Your task to perform on an android device: turn on improve location accuracy Image 0: 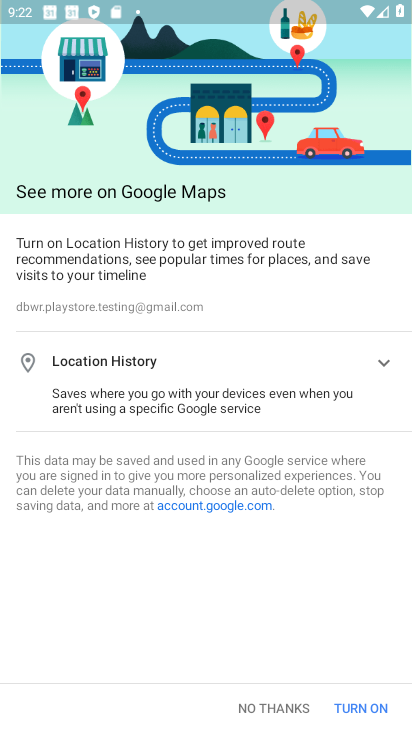
Step 0: click (371, 702)
Your task to perform on an android device: turn on improve location accuracy Image 1: 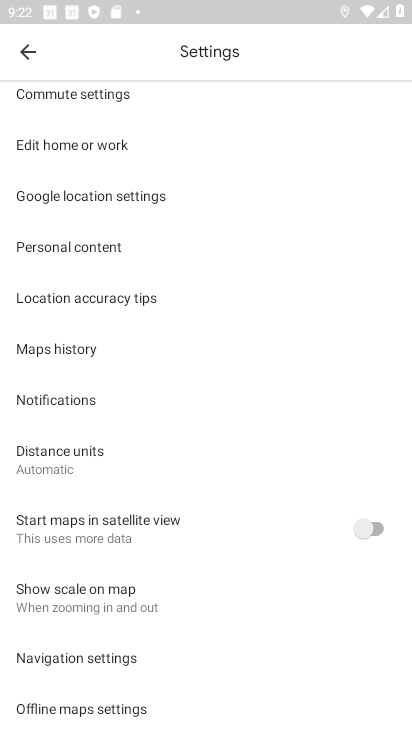
Step 1: click (98, 194)
Your task to perform on an android device: turn on improve location accuracy Image 2: 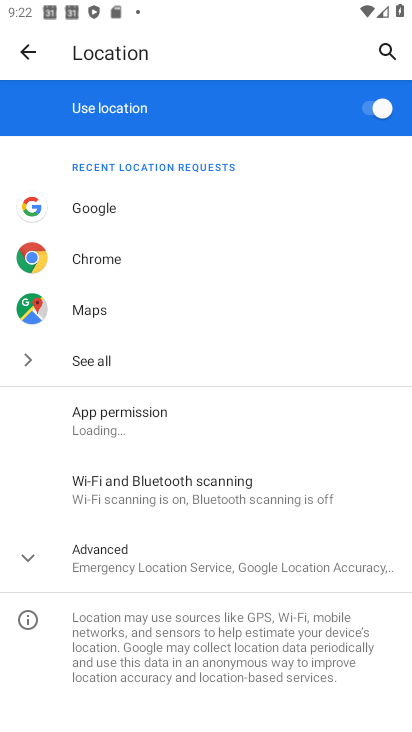
Step 2: click (148, 548)
Your task to perform on an android device: turn on improve location accuracy Image 3: 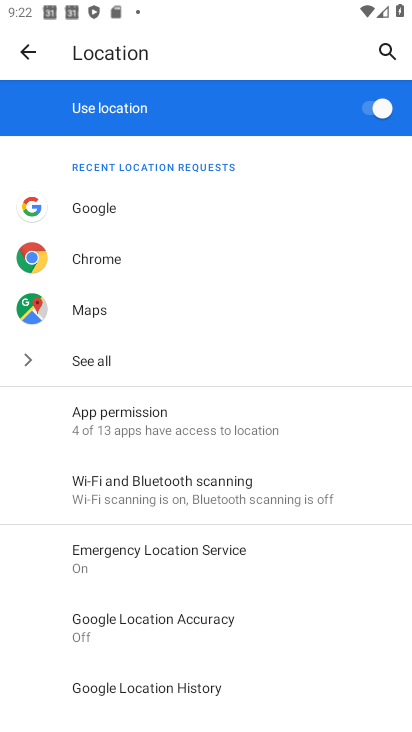
Step 3: click (184, 625)
Your task to perform on an android device: turn on improve location accuracy Image 4: 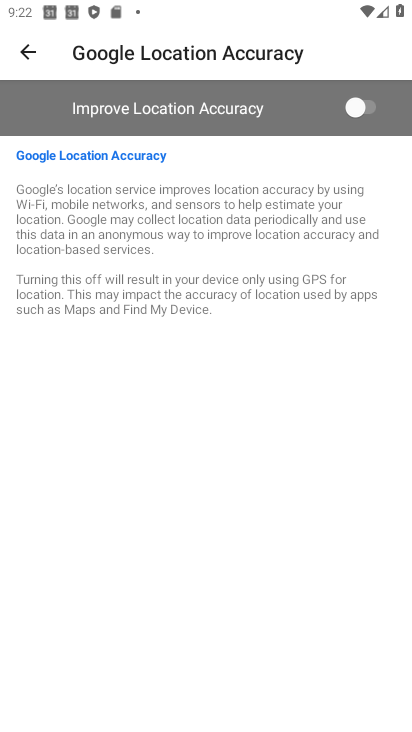
Step 4: click (365, 101)
Your task to perform on an android device: turn on improve location accuracy Image 5: 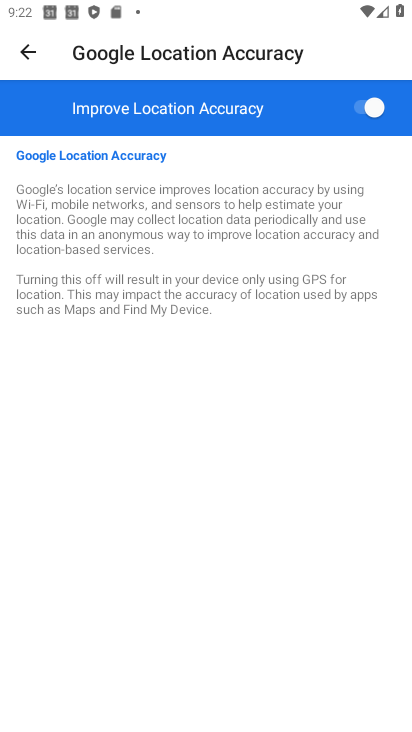
Step 5: task complete